Your task to perform on an android device: open the mobile data screen to see how much data has been used Image 0: 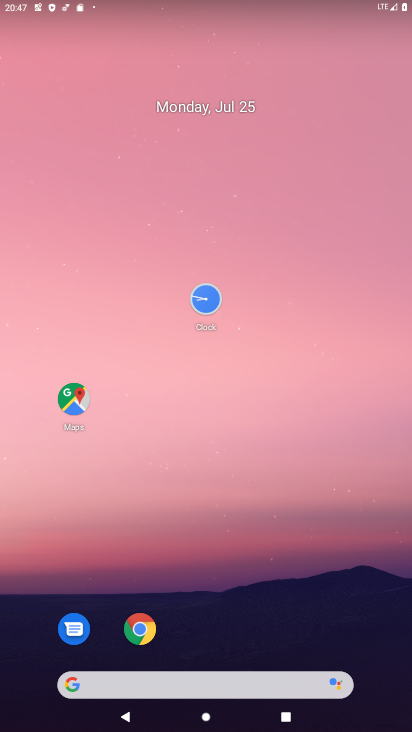
Step 0: drag from (226, 629) to (311, 9)
Your task to perform on an android device: open the mobile data screen to see how much data has been used Image 1: 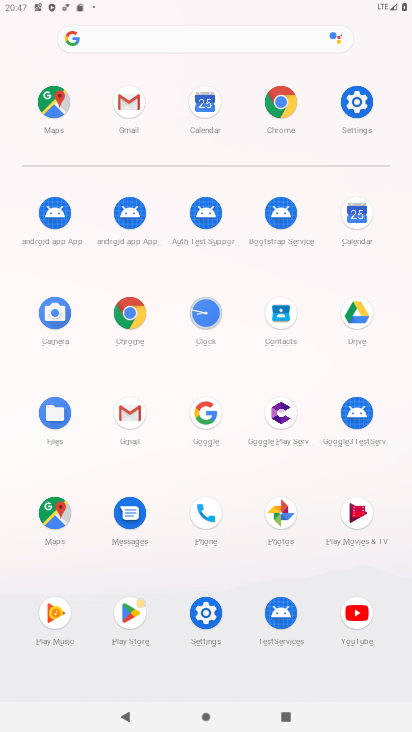
Step 1: click (208, 631)
Your task to perform on an android device: open the mobile data screen to see how much data has been used Image 2: 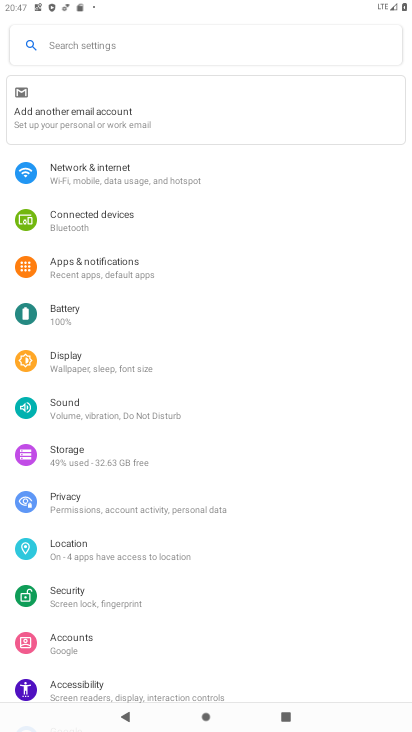
Step 2: click (137, 175)
Your task to perform on an android device: open the mobile data screen to see how much data has been used Image 3: 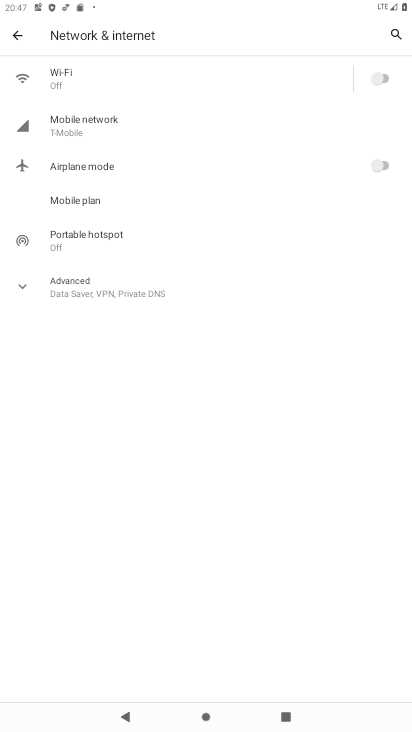
Step 3: click (99, 130)
Your task to perform on an android device: open the mobile data screen to see how much data has been used Image 4: 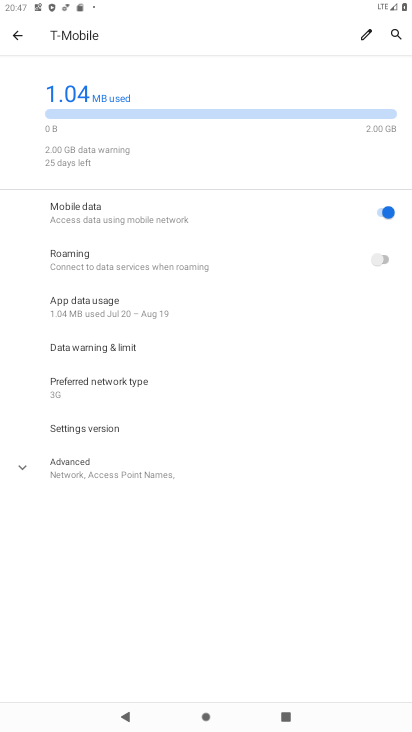
Step 4: click (214, 310)
Your task to perform on an android device: open the mobile data screen to see how much data has been used Image 5: 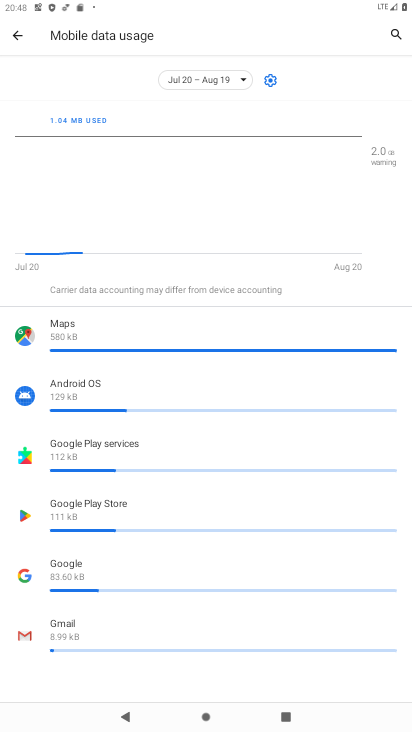
Step 5: task complete